Your task to perform on an android device: check the backup settings in the google photos Image 0: 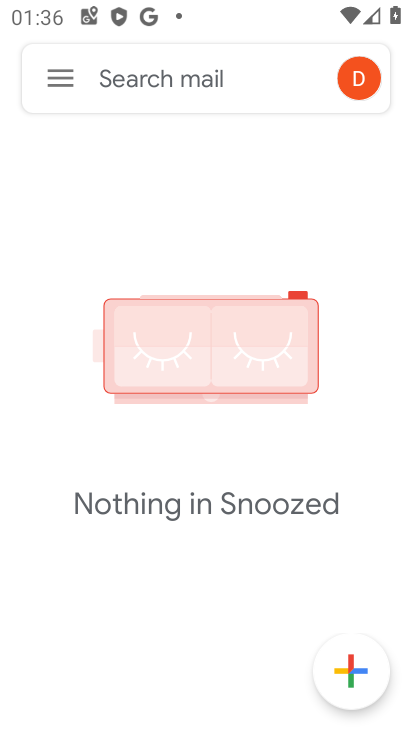
Step 0: press home button
Your task to perform on an android device: check the backup settings in the google photos Image 1: 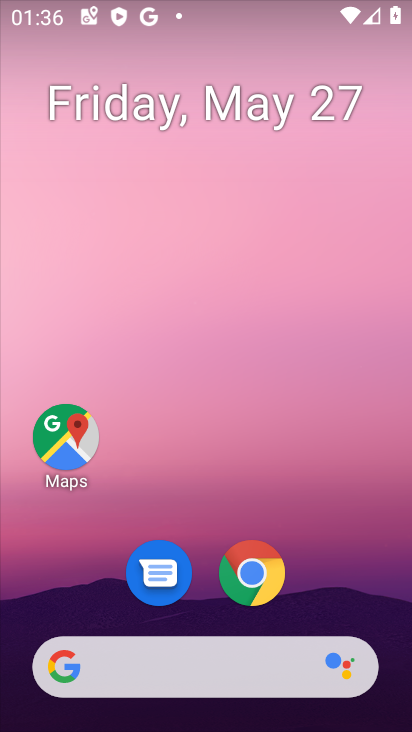
Step 1: drag from (161, 634) to (105, 12)
Your task to perform on an android device: check the backup settings in the google photos Image 2: 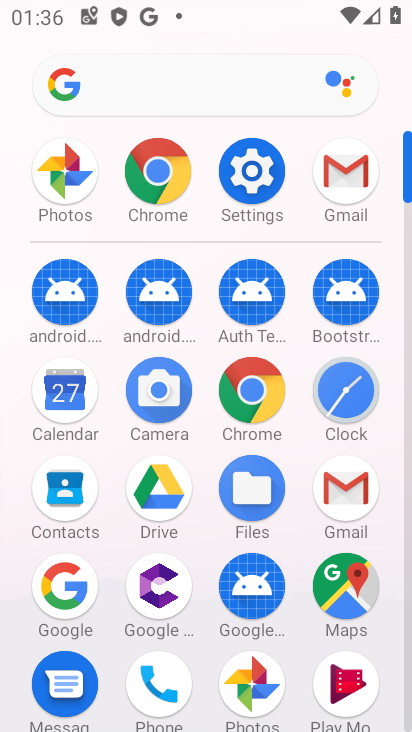
Step 2: click (255, 660)
Your task to perform on an android device: check the backup settings in the google photos Image 3: 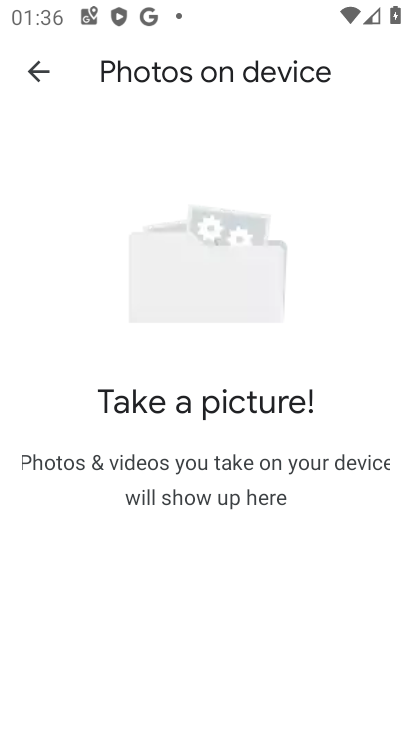
Step 3: click (38, 79)
Your task to perform on an android device: check the backup settings in the google photos Image 4: 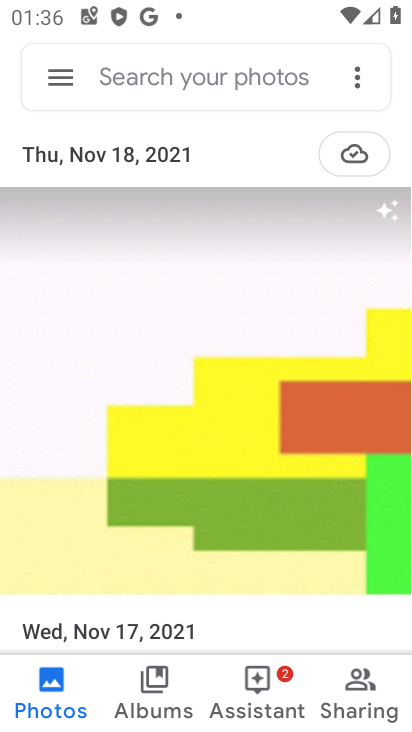
Step 4: click (65, 71)
Your task to perform on an android device: check the backup settings in the google photos Image 5: 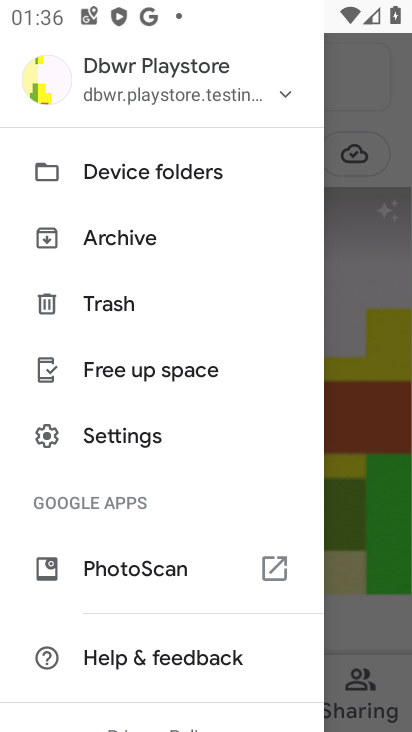
Step 5: click (116, 429)
Your task to perform on an android device: check the backup settings in the google photos Image 6: 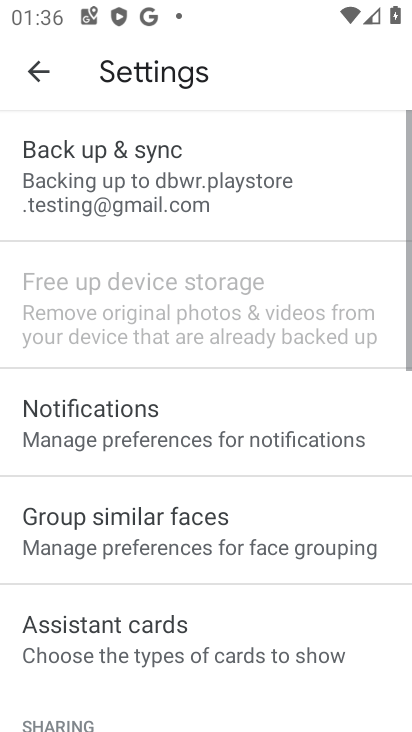
Step 6: click (127, 189)
Your task to perform on an android device: check the backup settings in the google photos Image 7: 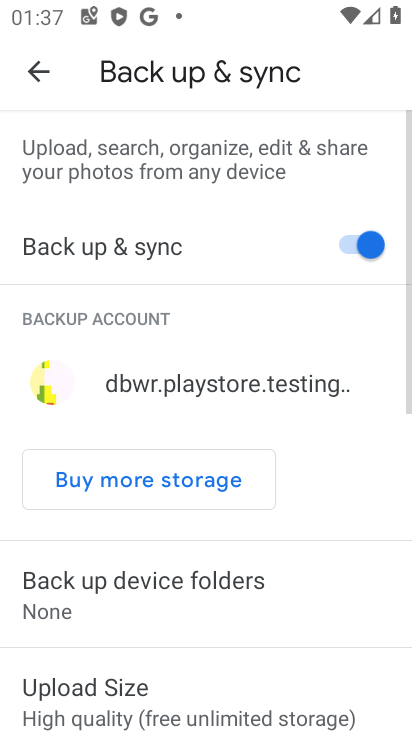
Step 7: task complete